Your task to perform on an android device: Open the map Image 0: 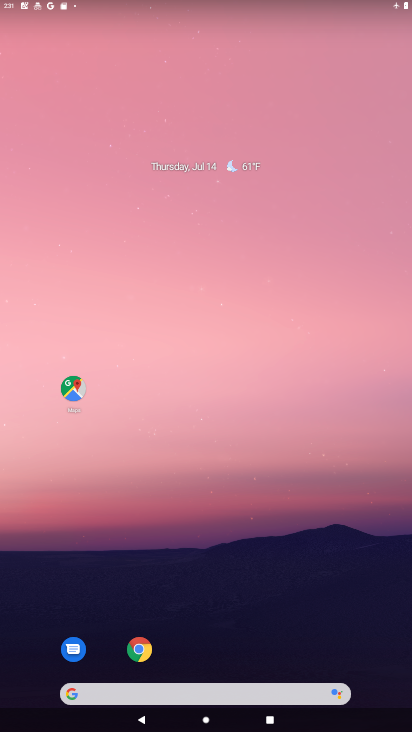
Step 0: drag from (279, 692) to (338, 64)
Your task to perform on an android device: Open the map Image 1: 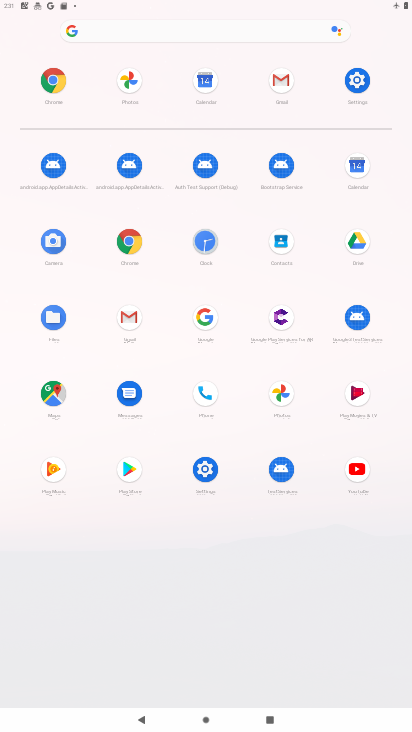
Step 1: click (54, 388)
Your task to perform on an android device: Open the map Image 2: 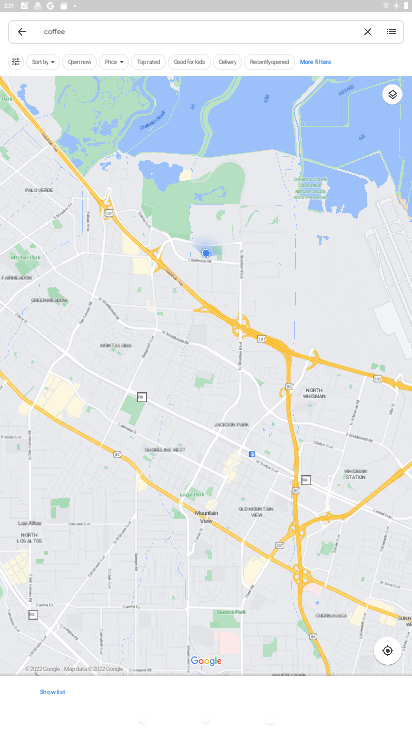
Step 2: task complete